Your task to perform on an android device: Open Android settings Image 0: 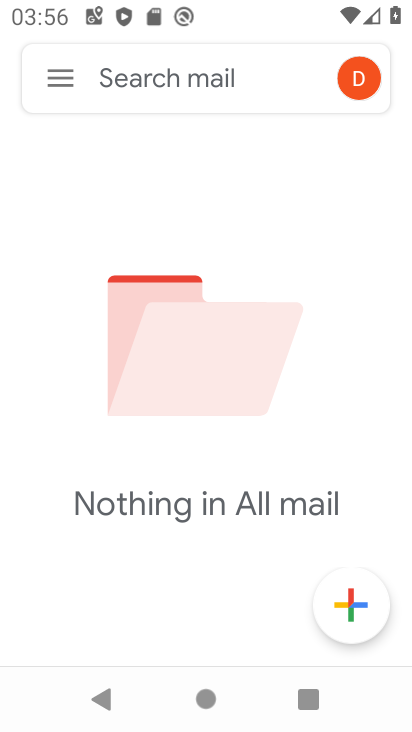
Step 0: press home button
Your task to perform on an android device: Open Android settings Image 1: 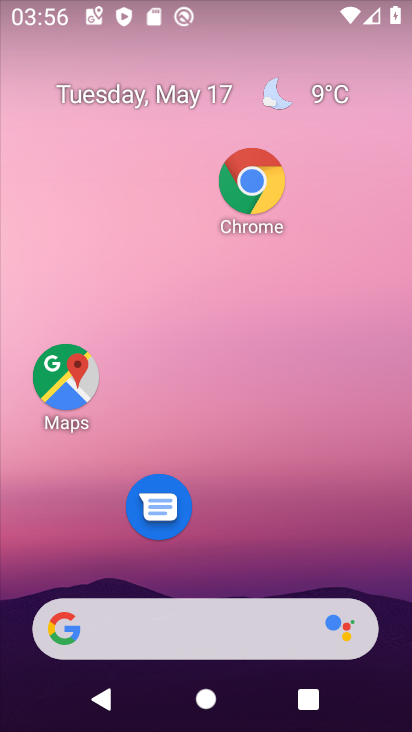
Step 1: drag from (258, 547) to (270, 131)
Your task to perform on an android device: Open Android settings Image 2: 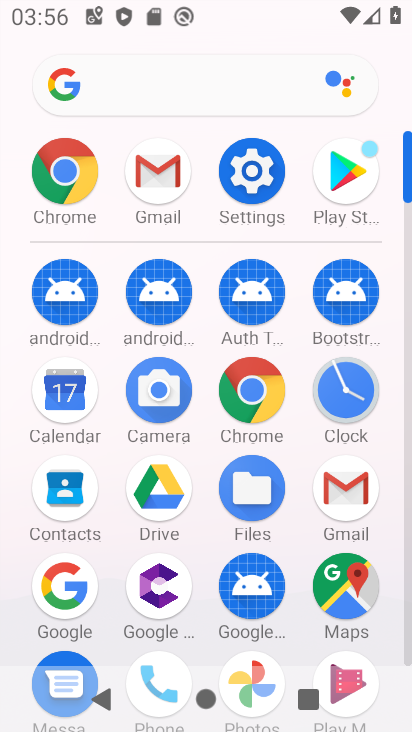
Step 2: click (244, 166)
Your task to perform on an android device: Open Android settings Image 3: 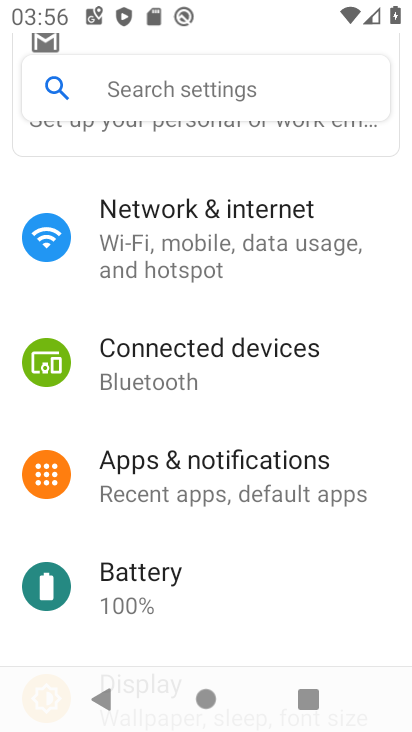
Step 3: task complete